Your task to perform on an android device: See recent photos Image 0: 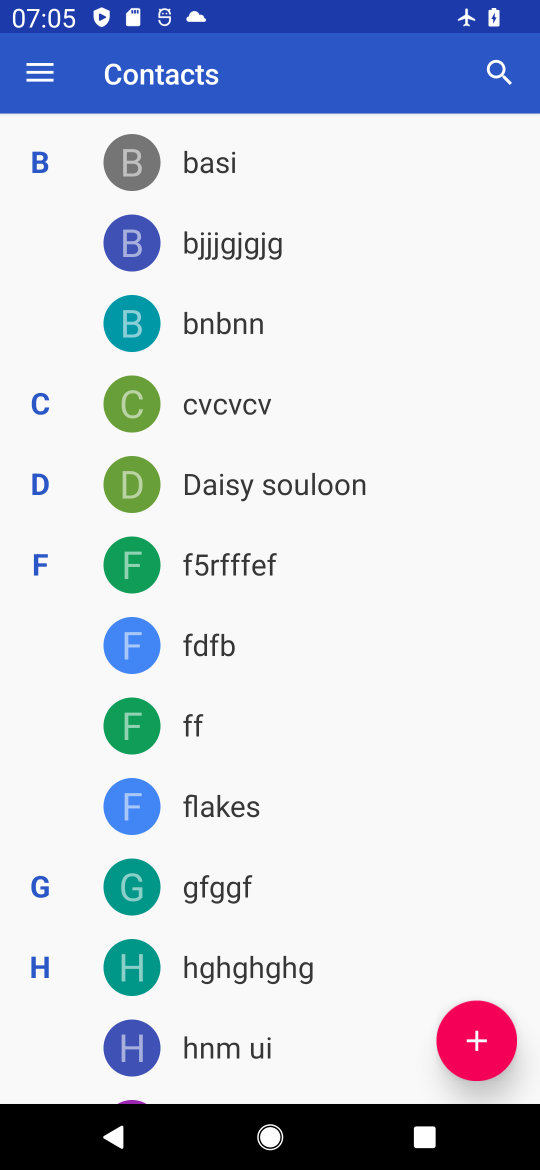
Step 0: press home button
Your task to perform on an android device: See recent photos Image 1: 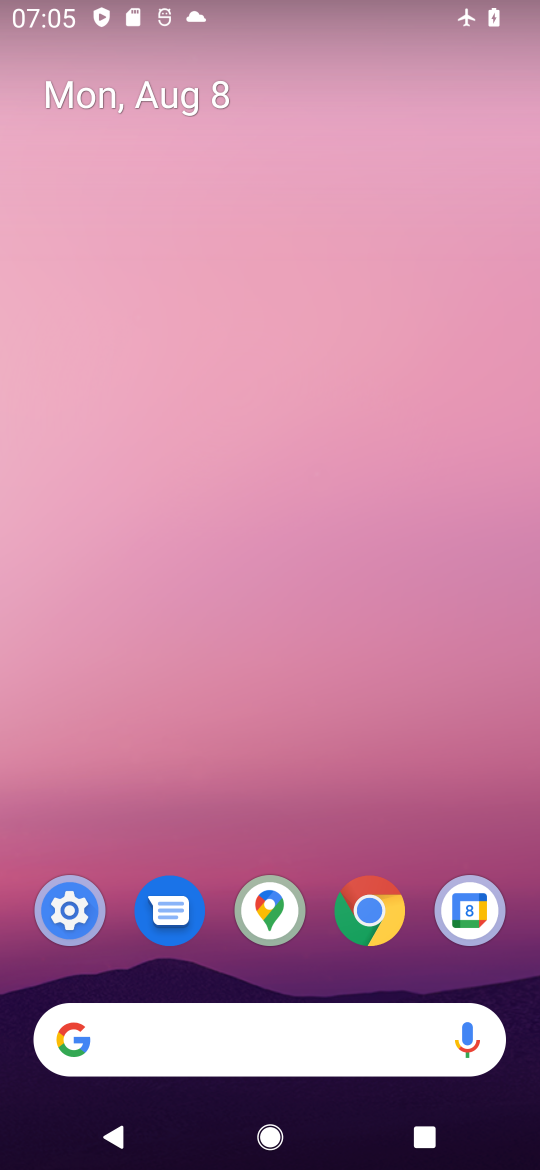
Step 1: drag from (218, 1052) to (211, 520)
Your task to perform on an android device: See recent photos Image 2: 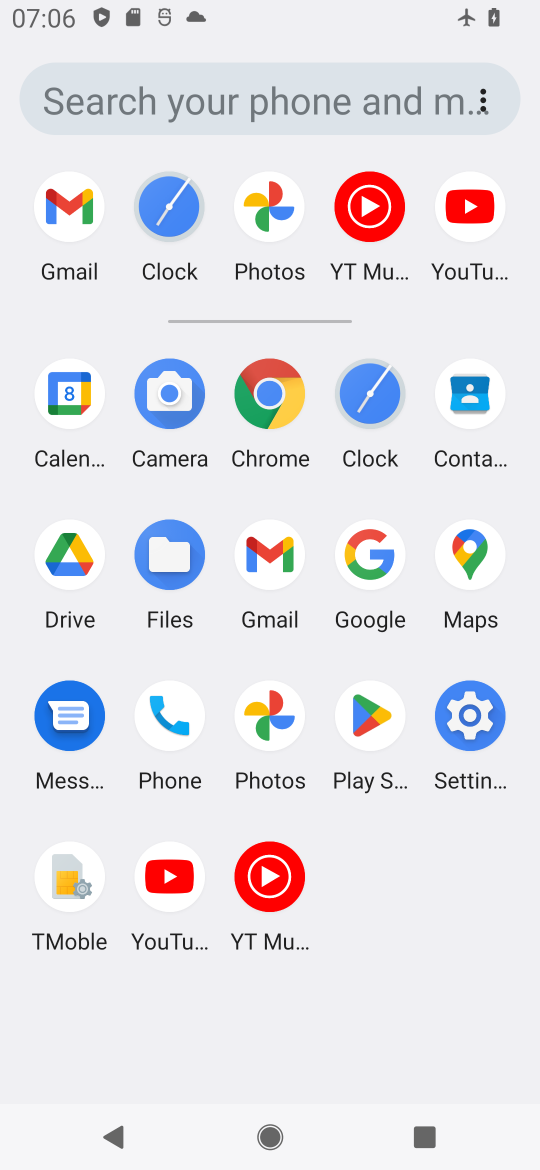
Step 2: click (364, 549)
Your task to perform on an android device: See recent photos Image 3: 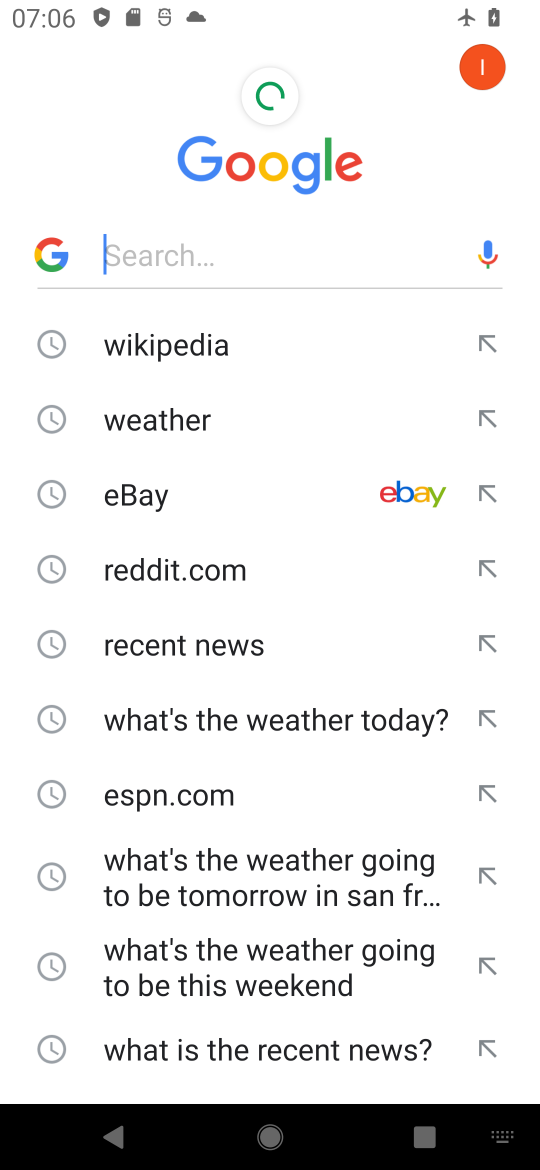
Step 3: press back button
Your task to perform on an android device: See recent photos Image 4: 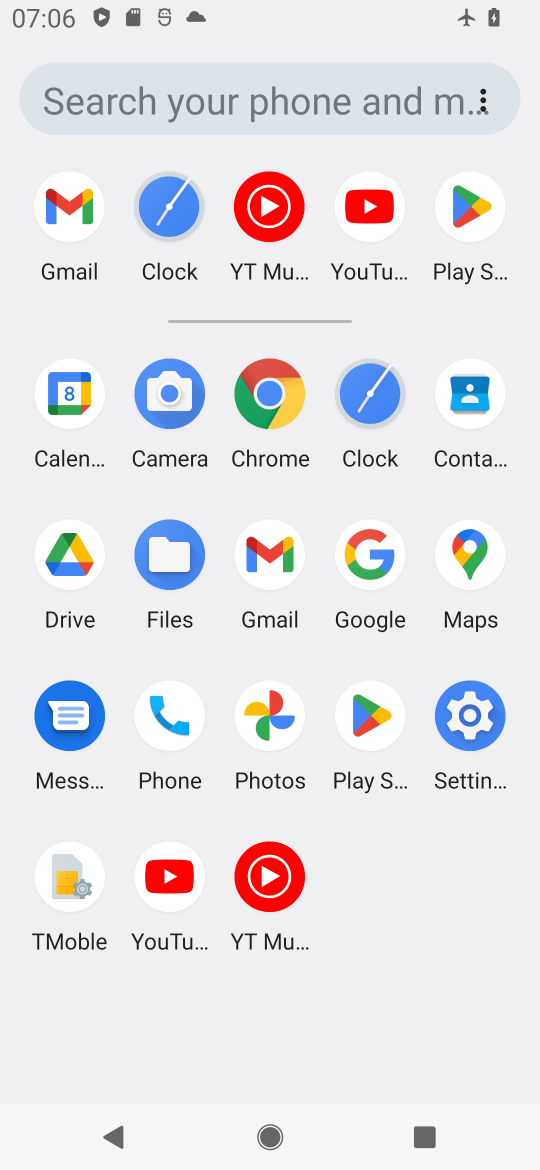
Step 4: click (270, 713)
Your task to perform on an android device: See recent photos Image 5: 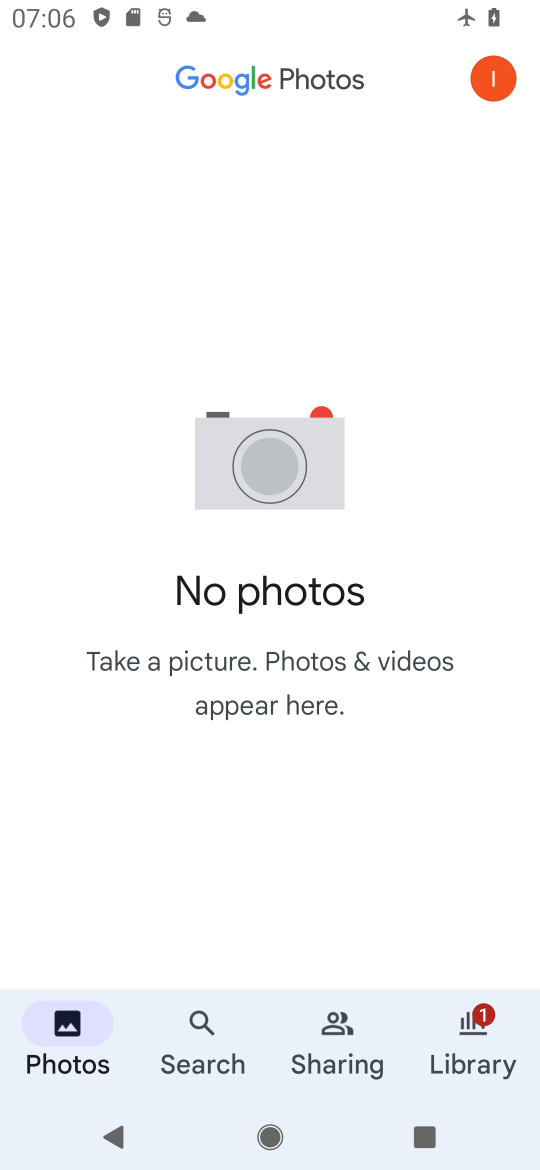
Step 5: click (208, 1030)
Your task to perform on an android device: See recent photos Image 6: 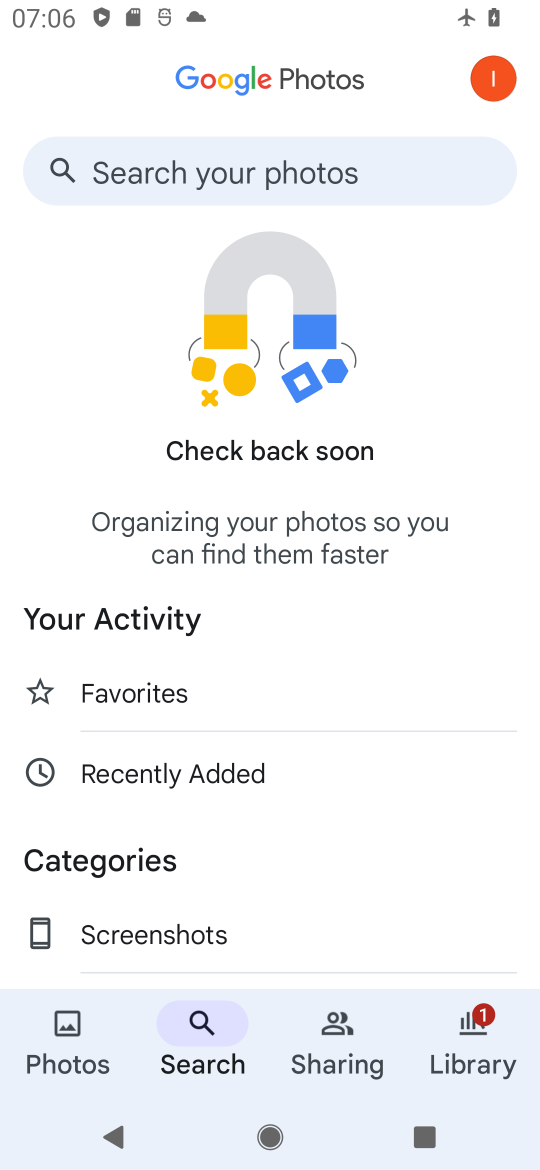
Step 6: drag from (204, 875) to (331, 701)
Your task to perform on an android device: See recent photos Image 7: 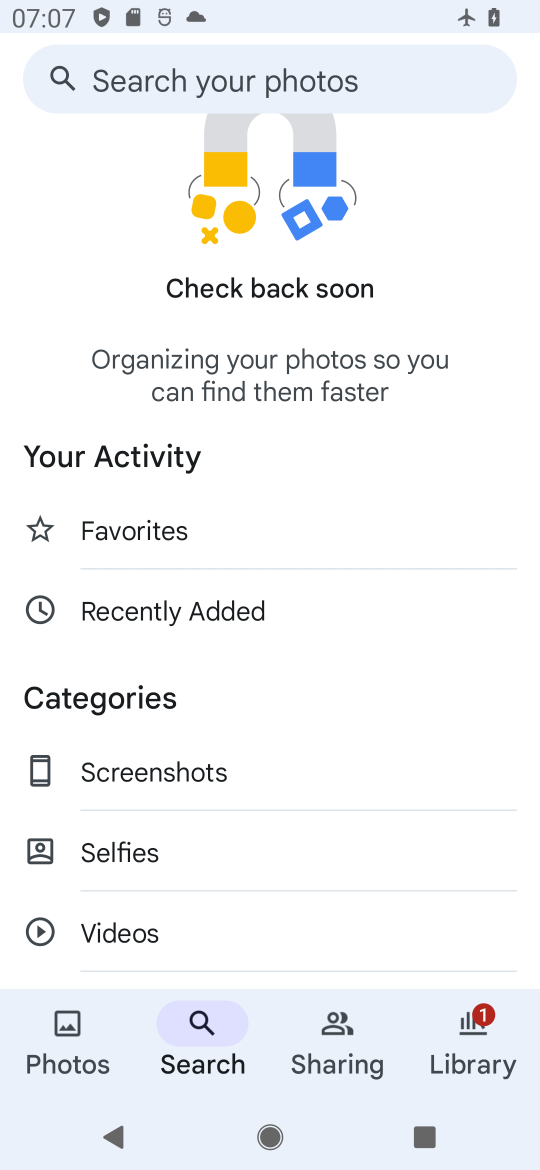
Step 7: drag from (261, 801) to (317, 672)
Your task to perform on an android device: See recent photos Image 8: 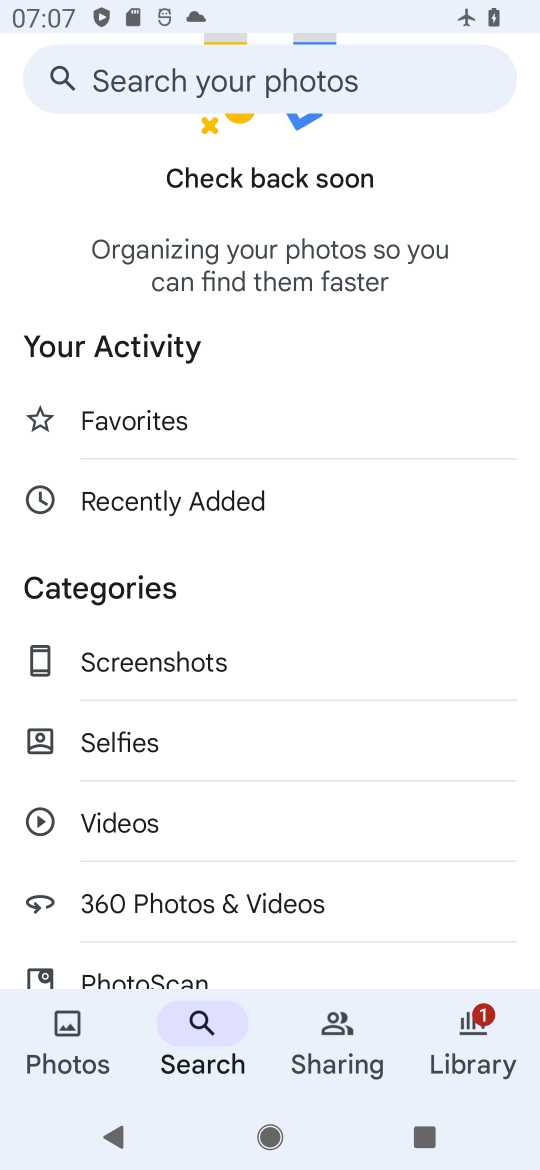
Step 8: click (211, 708)
Your task to perform on an android device: See recent photos Image 9: 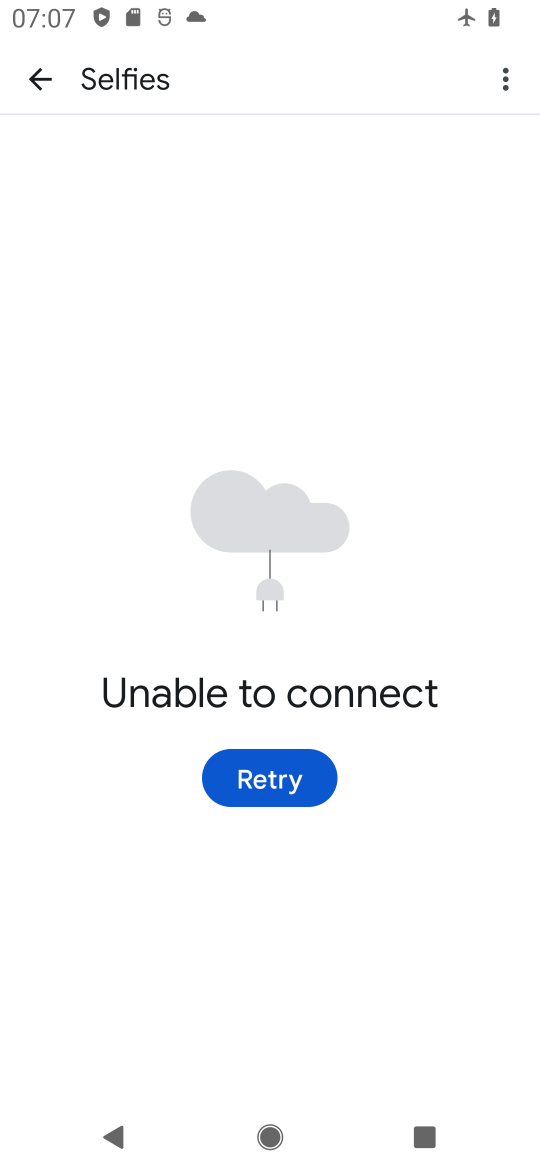
Step 9: task complete